Your task to perform on an android device: Show the shopping cart on costco.com. Add logitech g pro to the cart on costco.com, then select checkout. Image 0: 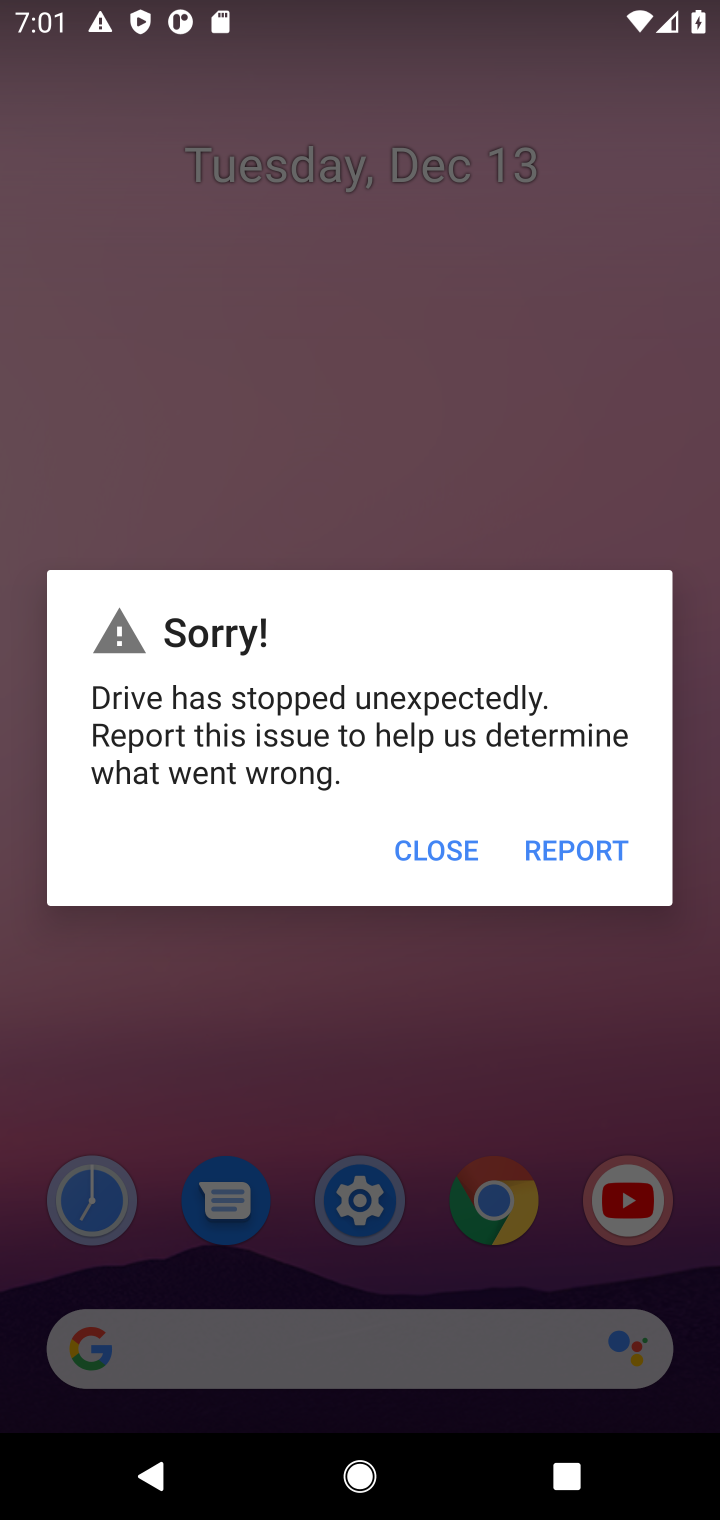
Step 0: press home button
Your task to perform on an android device: Show the shopping cart on costco.com. Add logitech g pro to the cart on costco.com, then select checkout. Image 1: 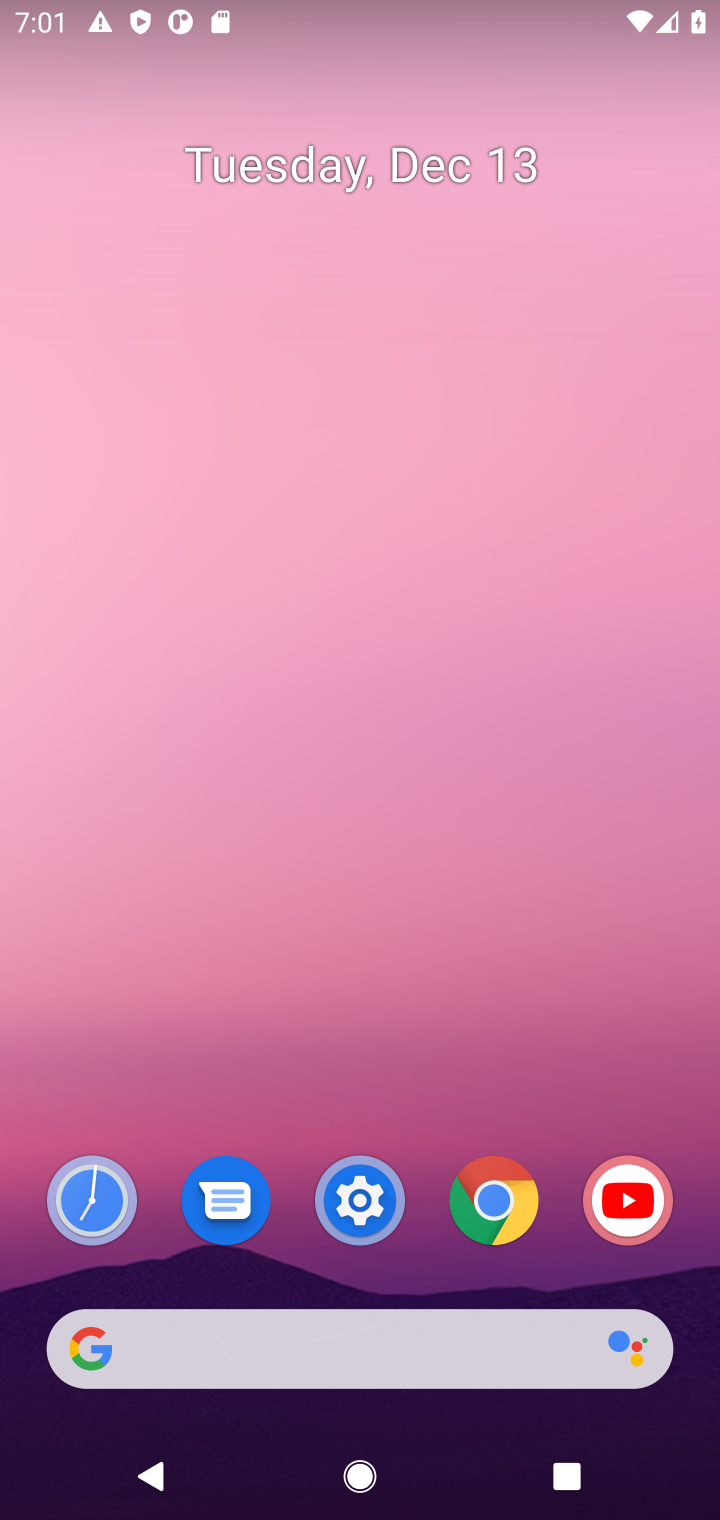
Step 1: click (281, 1324)
Your task to perform on an android device: Show the shopping cart on costco.com. Add logitech g pro to the cart on costco.com, then select checkout. Image 2: 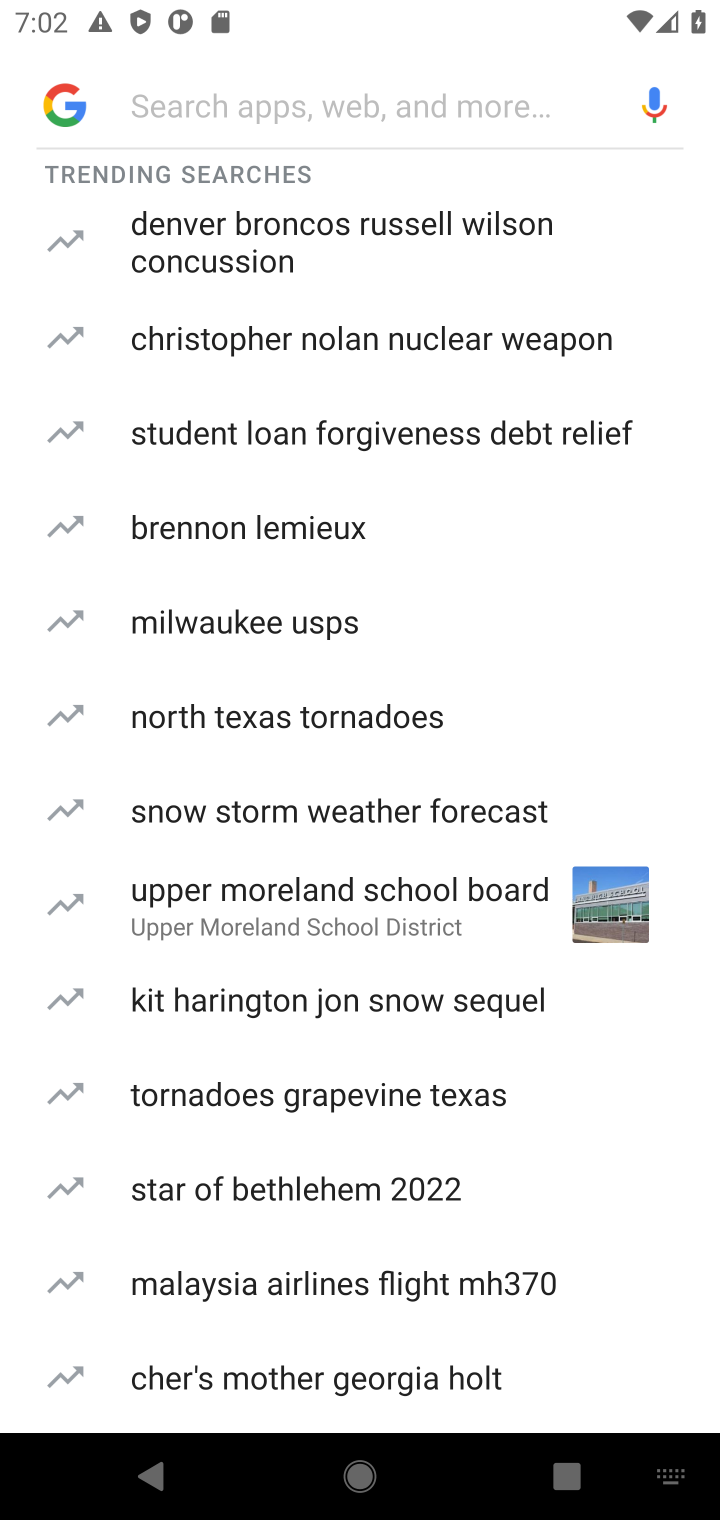
Step 2: type "costco.com."
Your task to perform on an android device: Show the shopping cart on costco.com. Add logitech g pro to the cart on costco.com, then select checkout. Image 3: 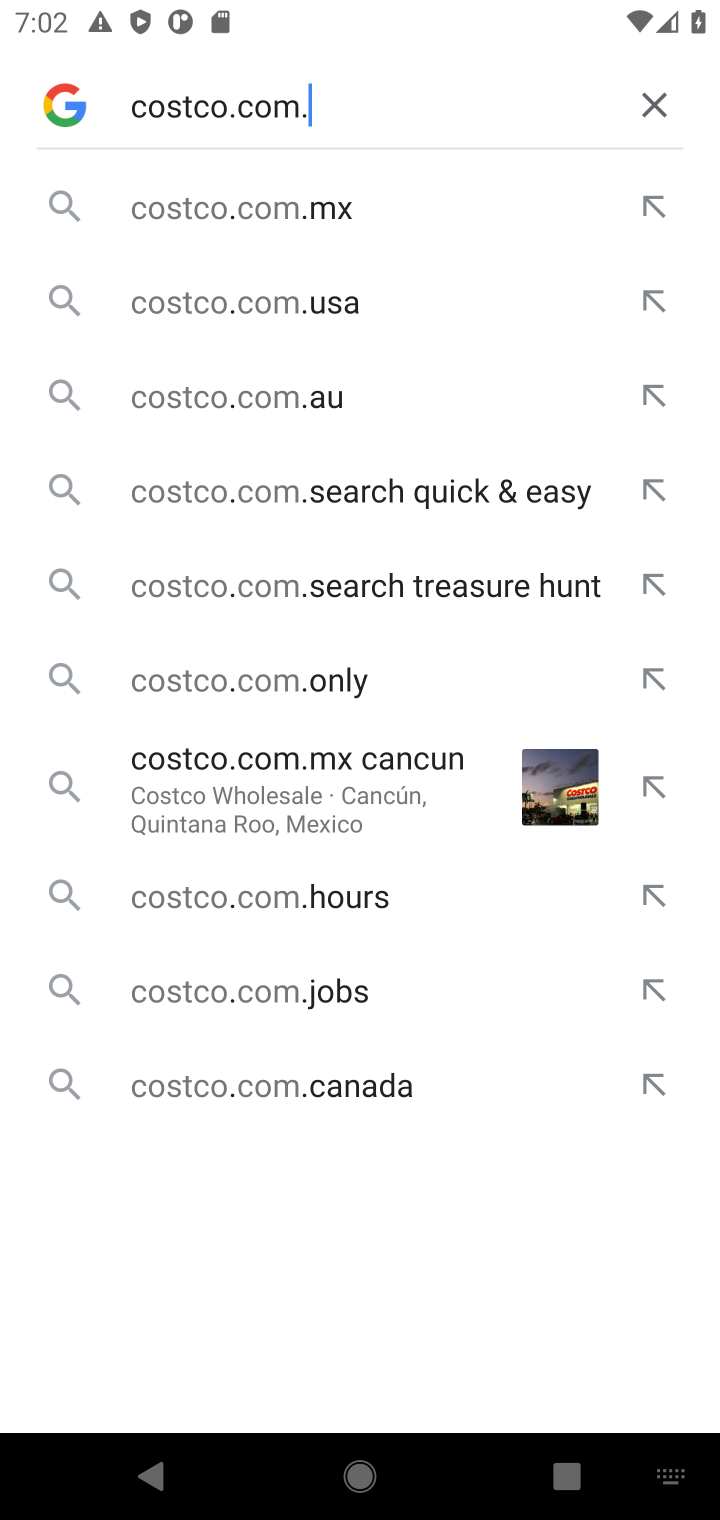
Step 3: click (668, 83)
Your task to perform on an android device: Show the shopping cart on costco.com. Add logitech g pro to the cart on costco.com, then select checkout. Image 4: 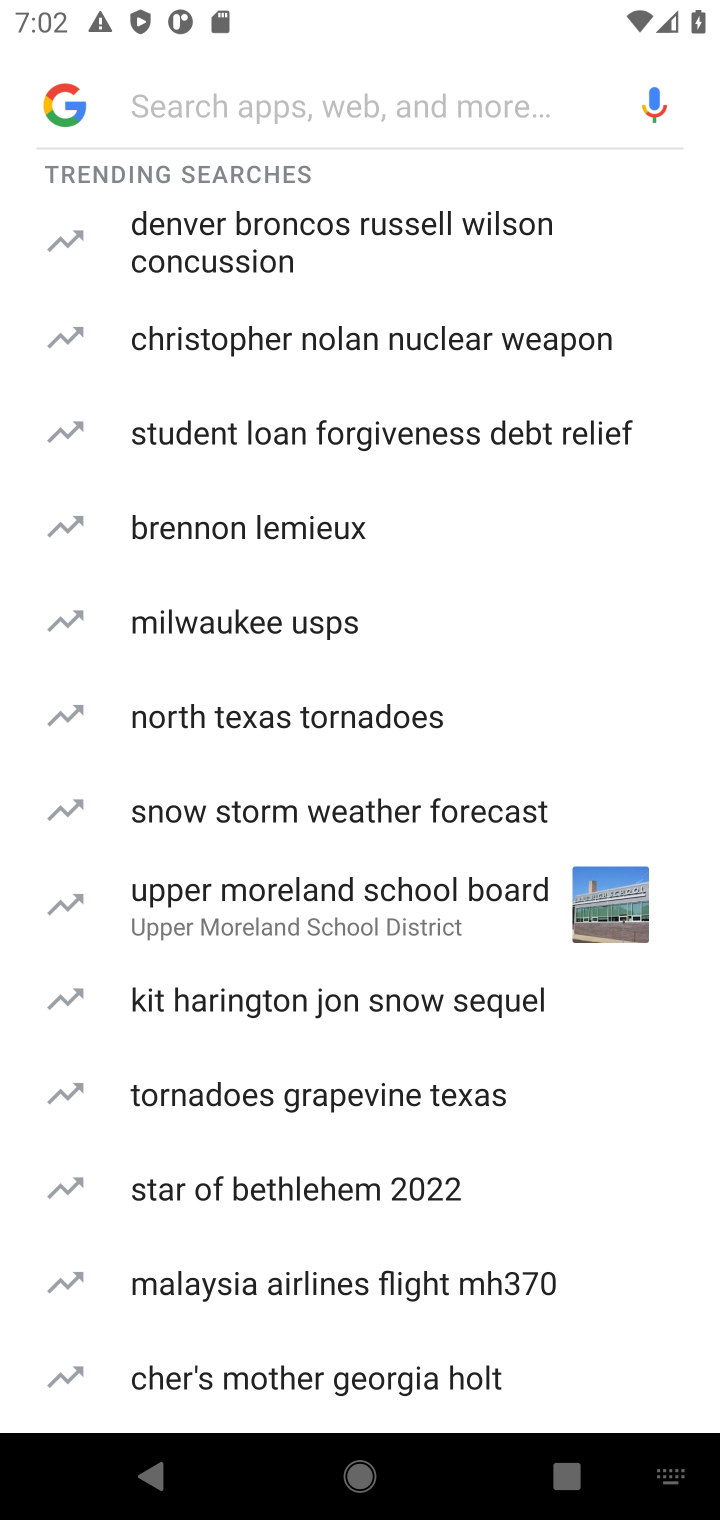
Step 4: type "costco.com"
Your task to perform on an android device: Show the shopping cart on costco.com. Add logitech g pro to the cart on costco.com, then select checkout. Image 5: 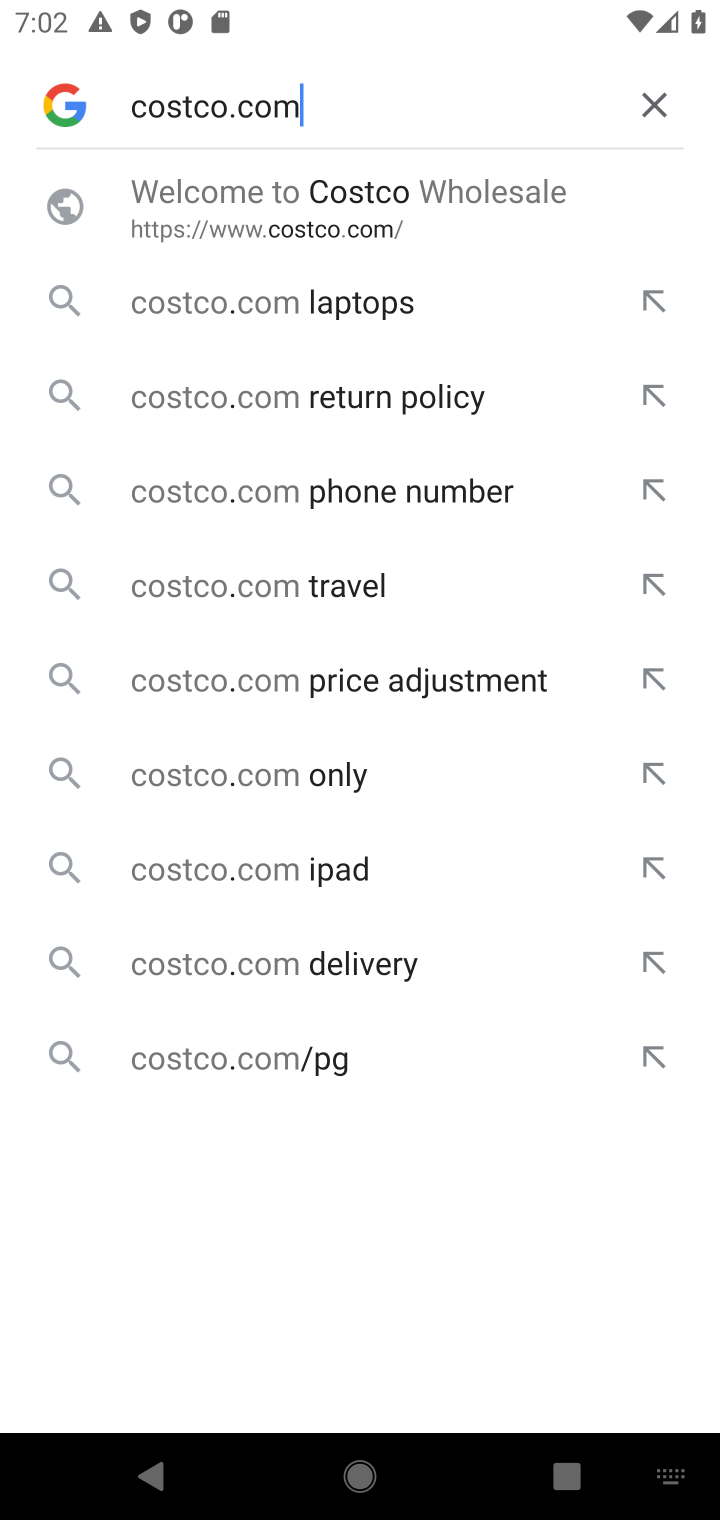
Step 5: click (402, 239)
Your task to perform on an android device: Show the shopping cart on costco.com. Add logitech g pro to the cart on costco.com, then select checkout. Image 6: 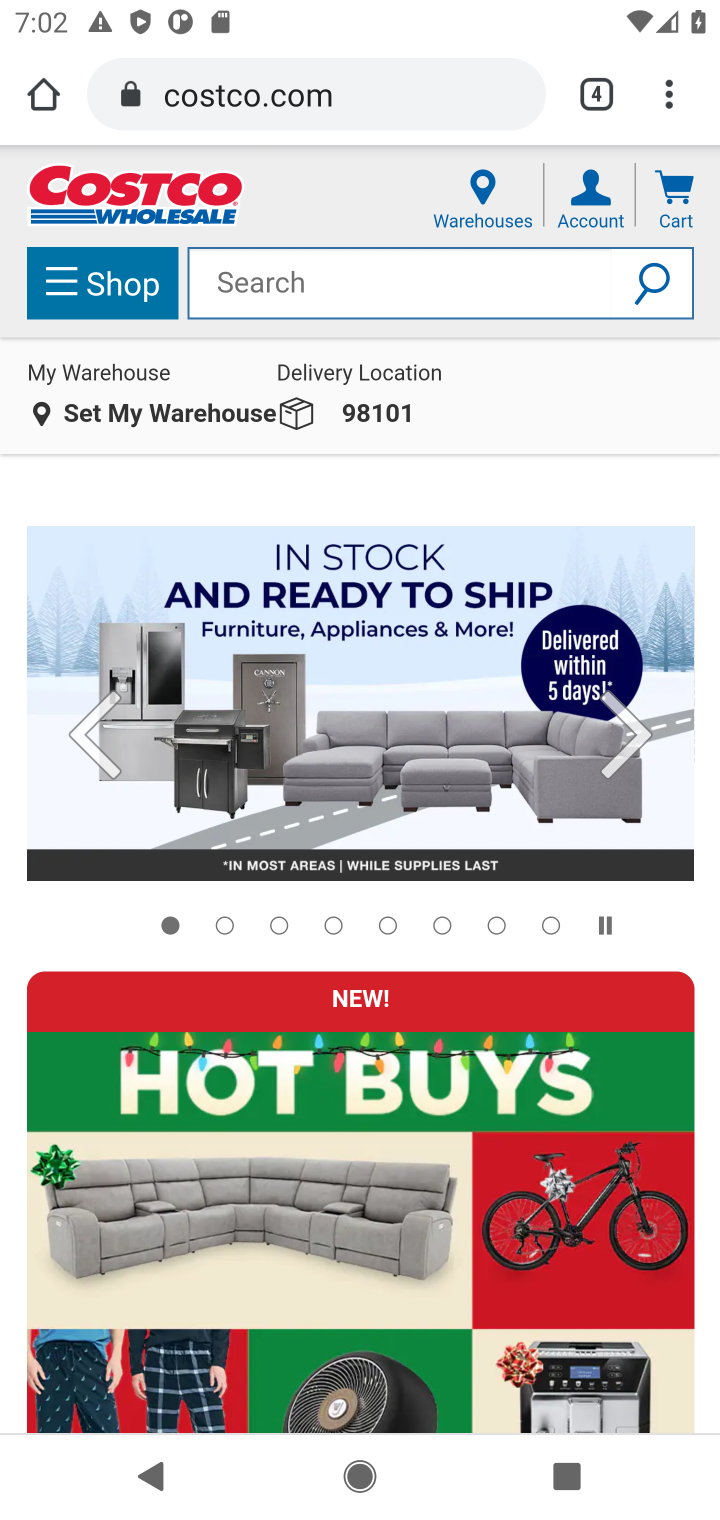
Step 6: click (674, 201)
Your task to perform on an android device: Show the shopping cart on costco.com. Add logitech g pro to the cart on costco.com, then select checkout. Image 7: 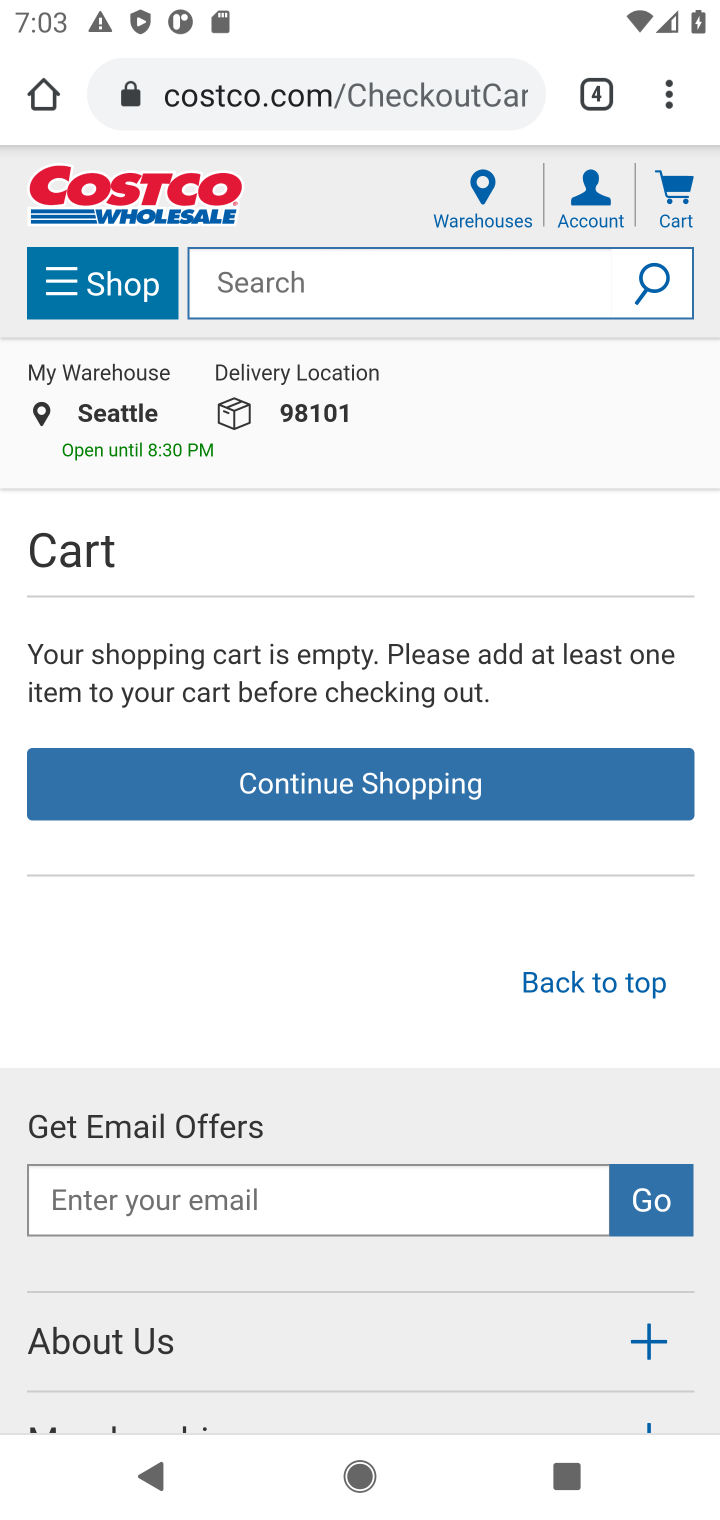
Step 7: click (507, 258)
Your task to perform on an android device: Show the shopping cart on costco.com. Add logitech g pro to the cart on costco.com, then select checkout. Image 8: 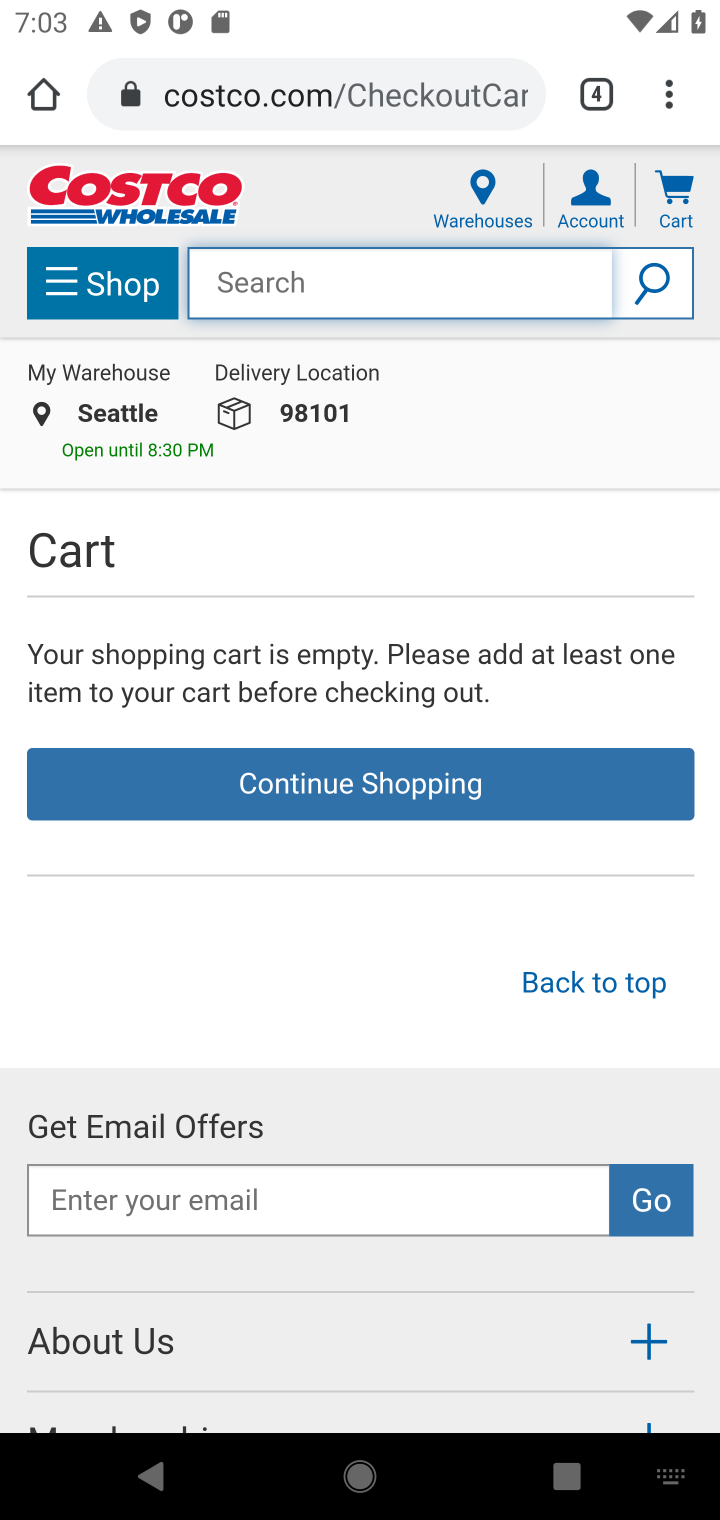
Step 8: type "logitech g pro"
Your task to perform on an android device: Show the shopping cart on costco.com. Add logitech g pro to the cart on costco.com, then select checkout. Image 9: 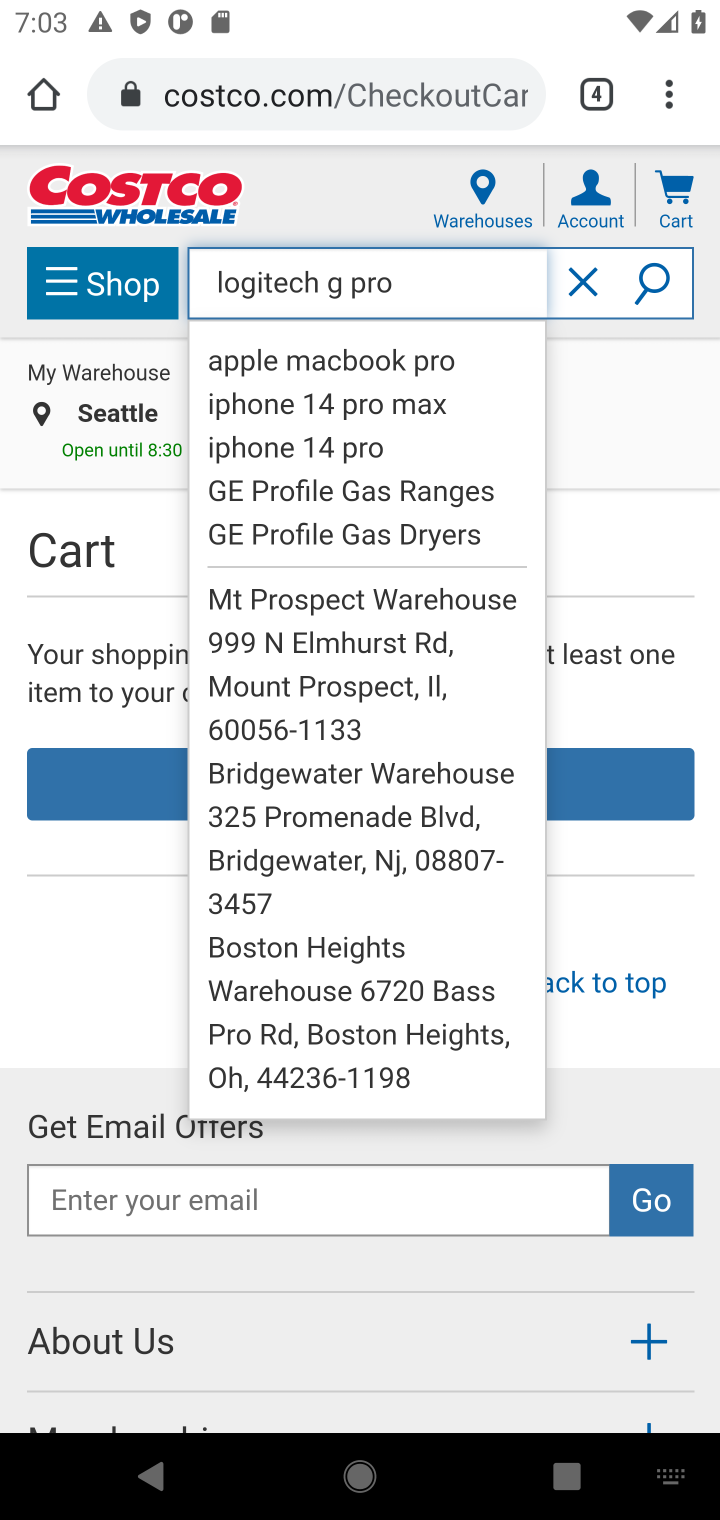
Step 9: click (670, 282)
Your task to perform on an android device: Show the shopping cart on costco.com. Add logitech g pro to the cart on costco.com, then select checkout. Image 10: 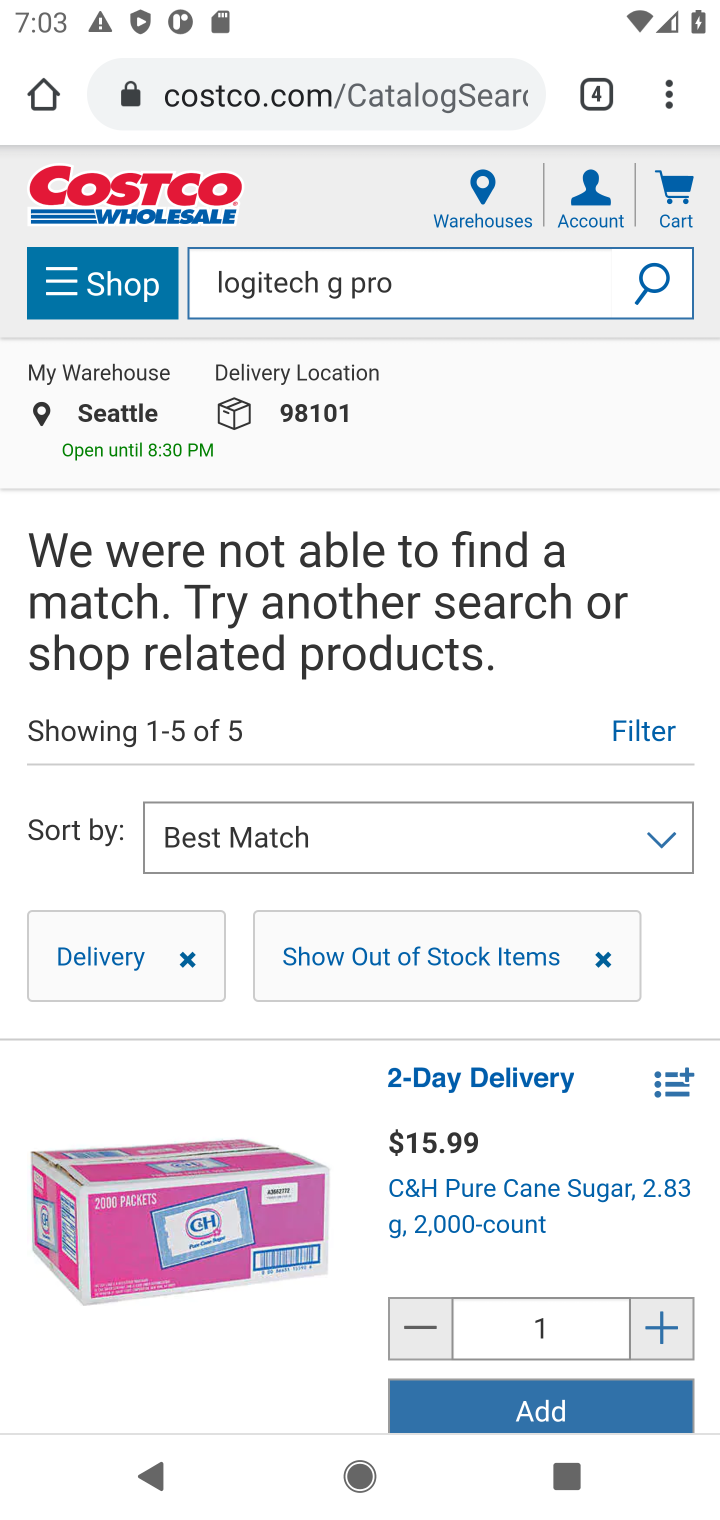
Step 10: click (532, 1411)
Your task to perform on an android device: Show the shopping cart on costco.com. Add logitech g pro to the cart on costco.com, then select checkout. Image 11: 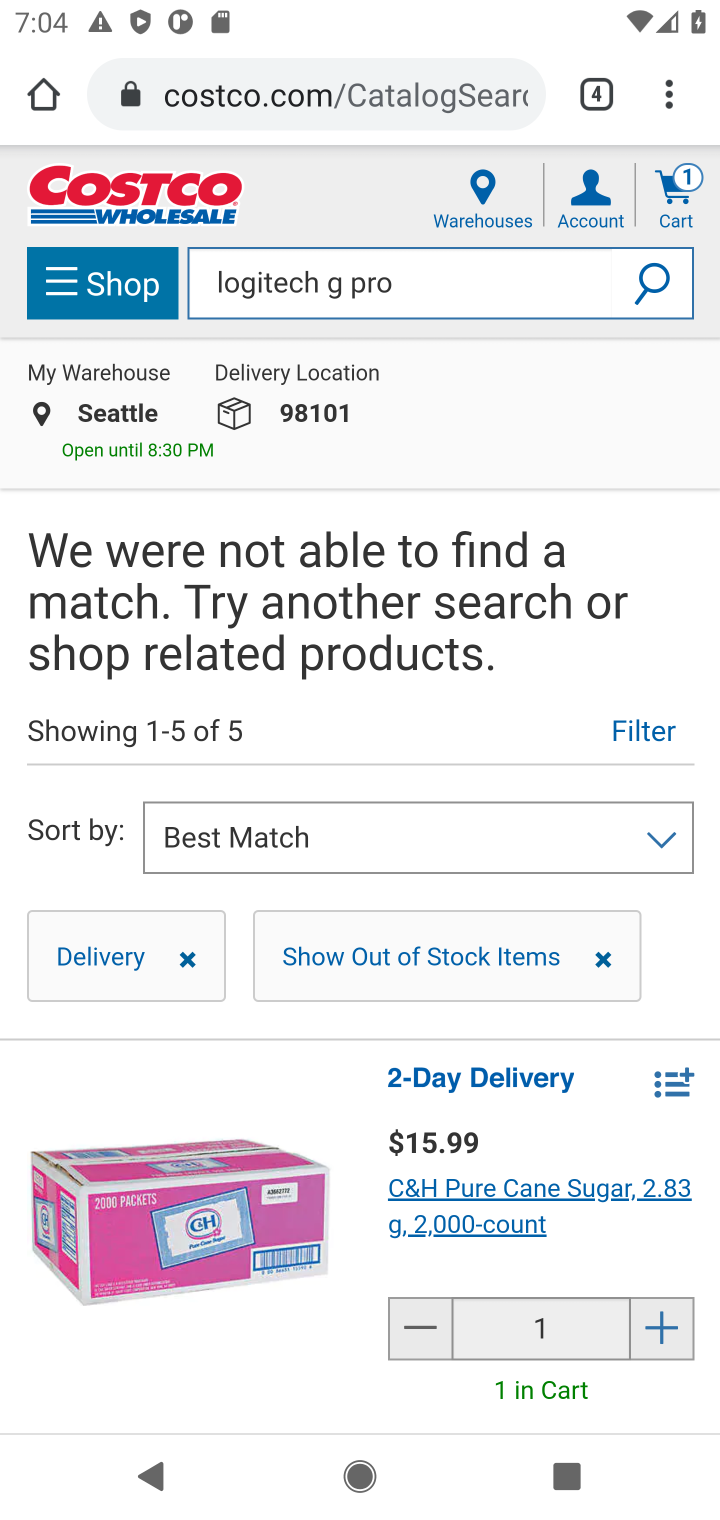
Step 11: click (683, 192)
Your task to perform on an android device: Show the shopping cart on costco.com. Add logitech g pro to the cart on costco.com, then select checkout. Image 12: 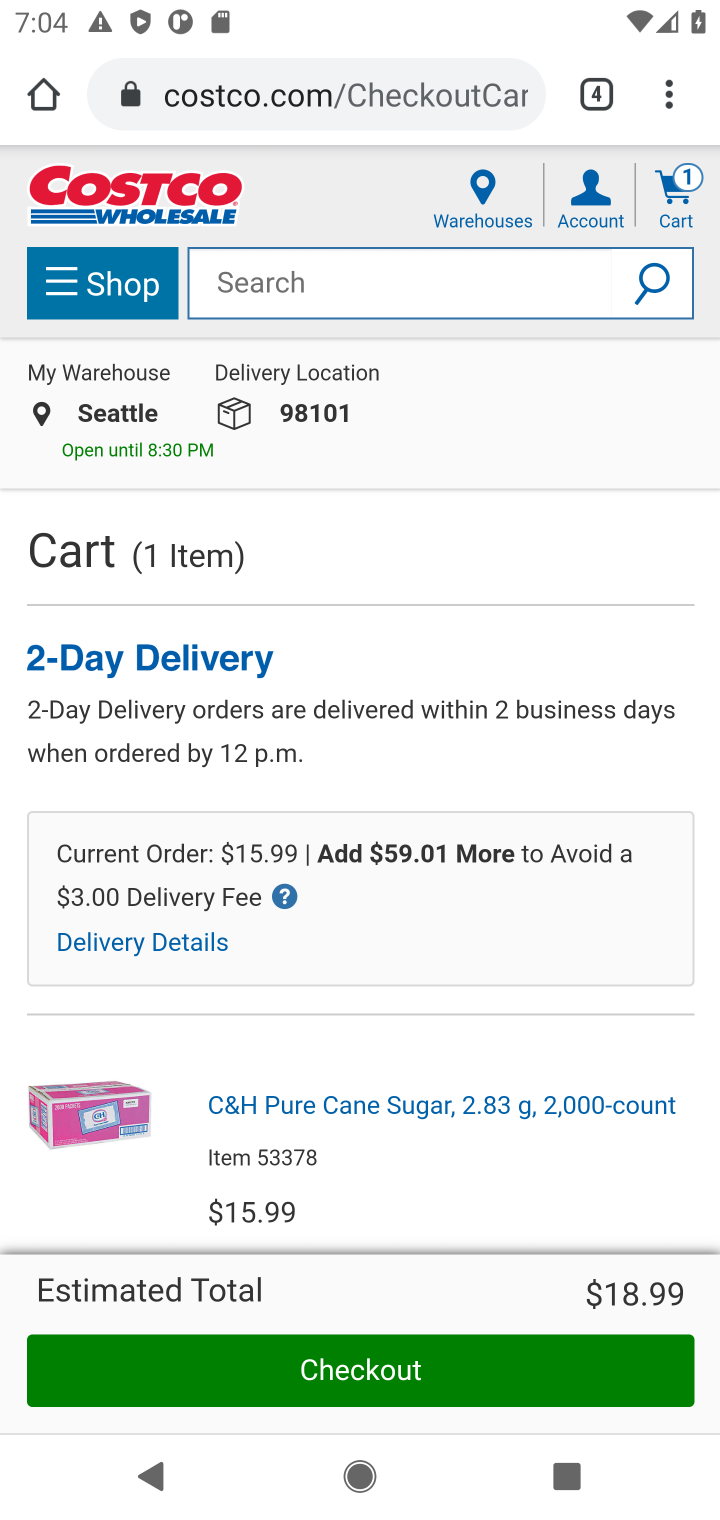
Step 12: click (386, 1368)
Your task to perform on an android device: Show the shopping cart on costco.com. Add logitech g pro to the cart on costco.com, then select checkout. Image 13: 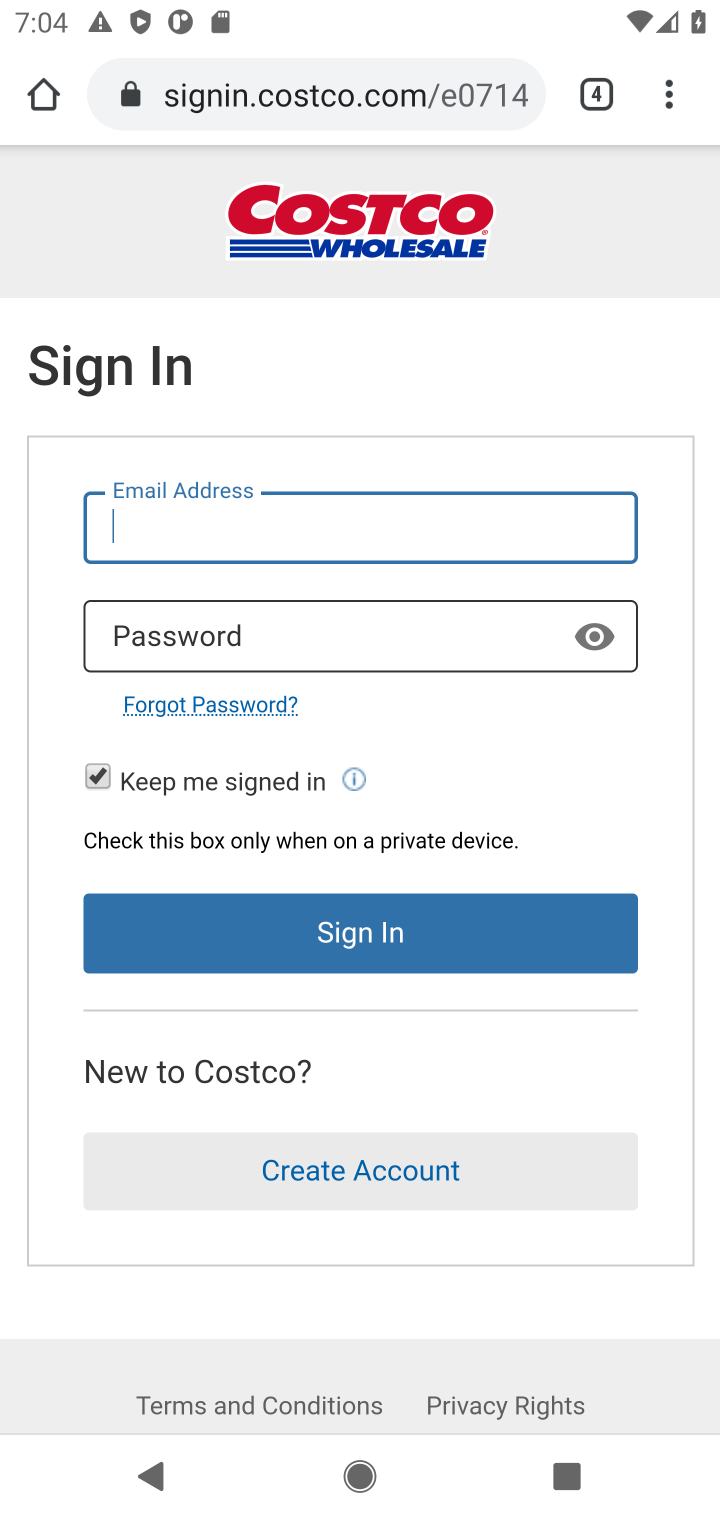
Step 13: task complete